Your task to perform on an android device: Go to privacy settings Image 0: 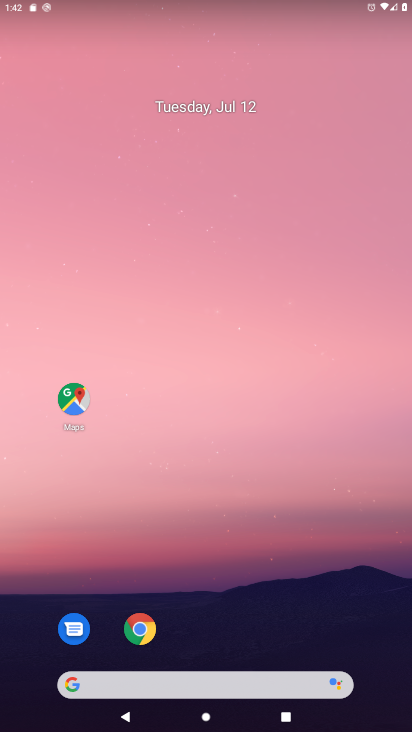
Step 0: drag from (271, 667) to (267, 241)
Your task to perform on an android device: Go to privacy settings Image 1: 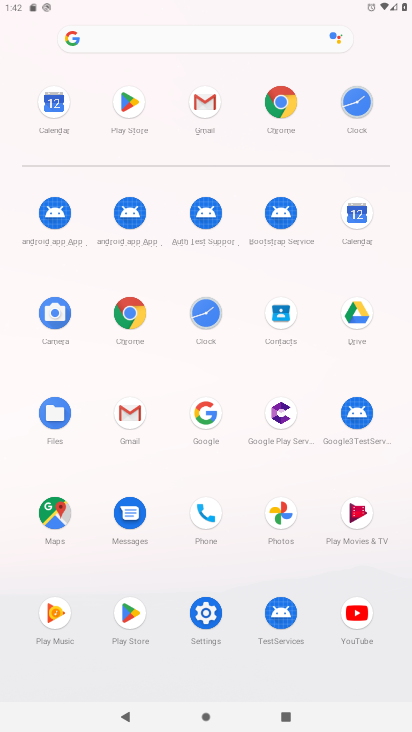
Step 1: click (199, 609)
Your task to perform on an android device: Go to privacy settings Image 2: 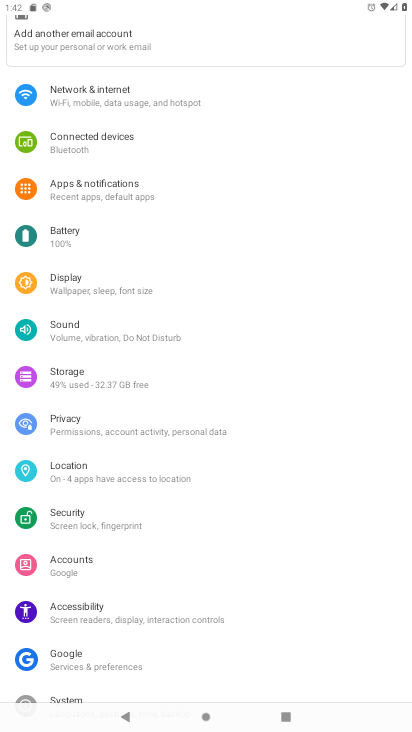
Step 2: click (80, 425)
Your task to perform on an android device: Go to privacy settings Image 3: 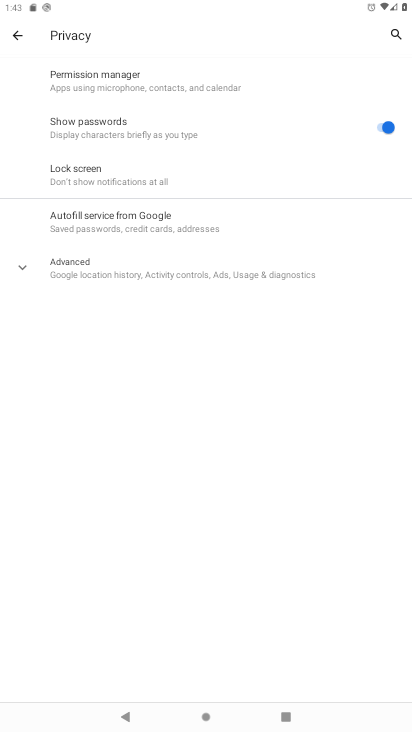
Step 3: task complete